Your task to perform on an android device: Go to display settings Image 0: 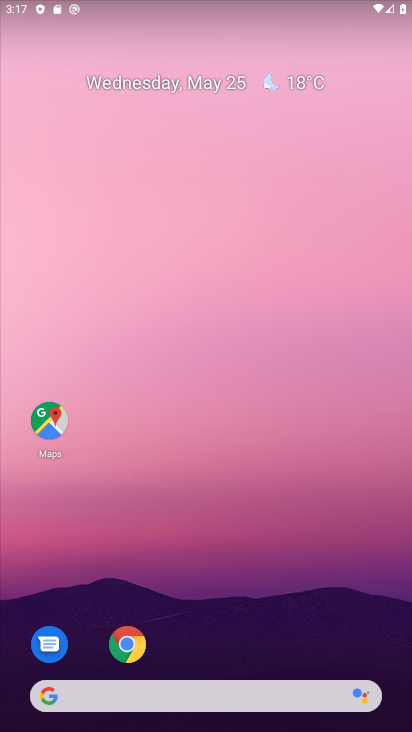
Step 0: drag from (260, 597) to (206, 138)
Your task to perform on an android device: Go to display settings Image 1: 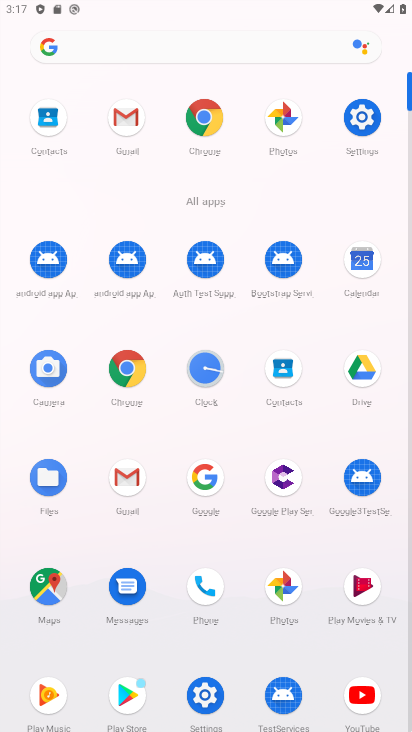
Step 1: click (363, 116)
Your task to perform on an android device: Go to display settings Image 2: 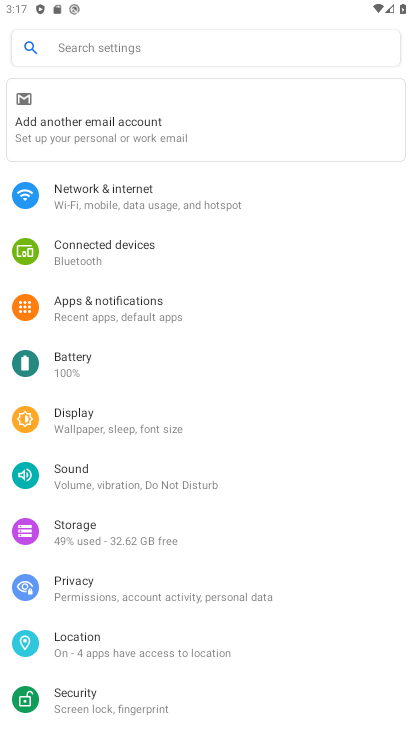
Step 2: click (91, 418)
Your task to perform on an android device: Go to display settings Image 3: 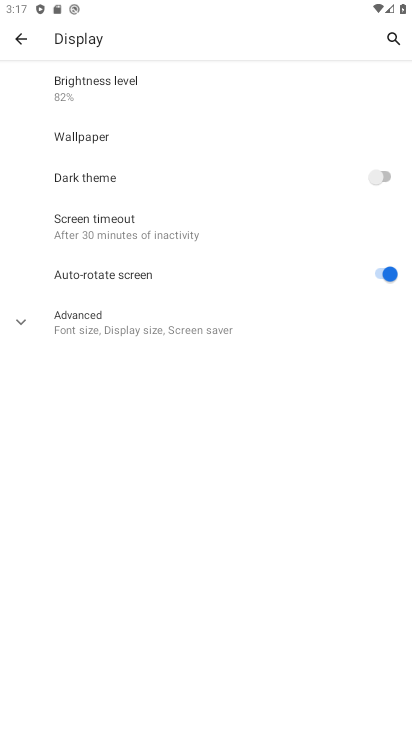
Step 3: task complete